Your task to perform on an android device: empty trash in google photos Image 0: 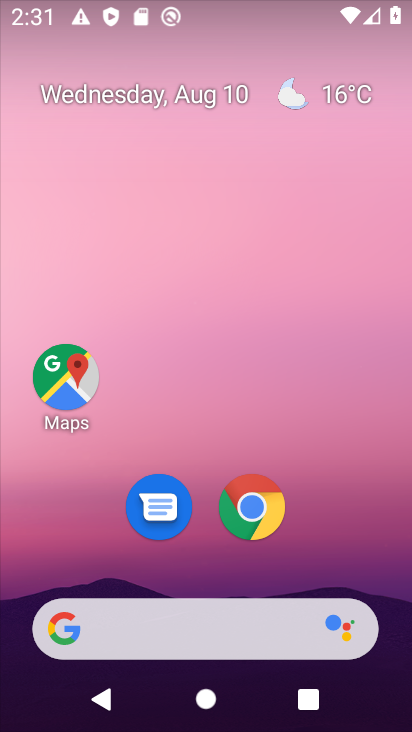
Step 0: drag from (342, 541) to (319, 68)
Your task to perform on an android device: empty trash in google photos Image 1: 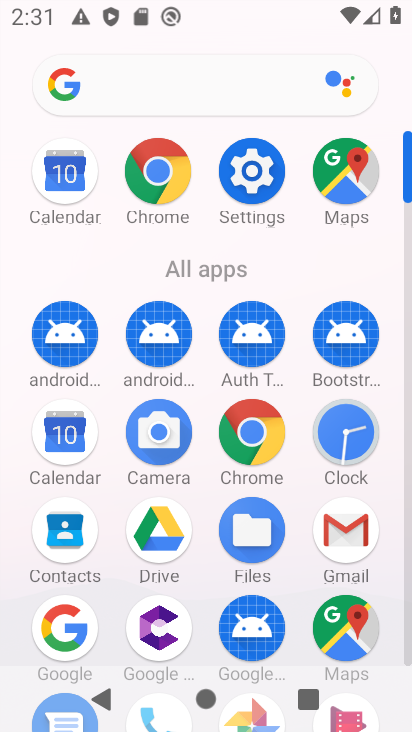
Step 1: drag from (201, 617) to (211, 175)
Your task to perform on an android device: empty trash in google photos Image 2: 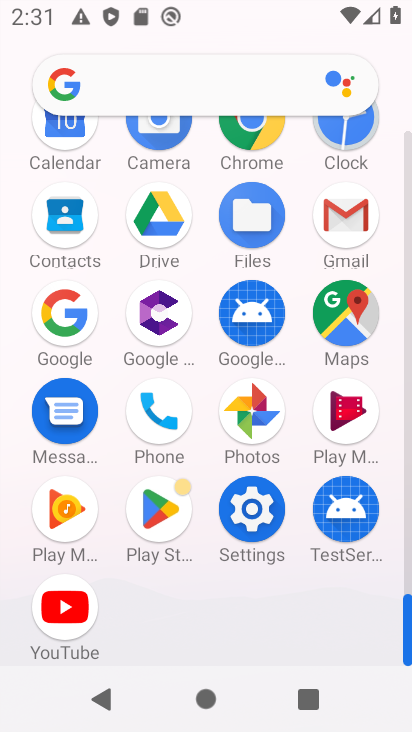
Step 2: click (252, 403)
Your task to perform on an android device: empty trash in google photos Image 3: 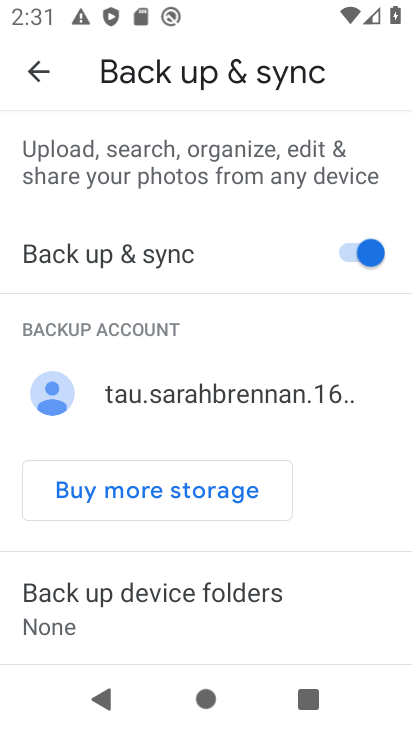
Step 3: click (40, 78)
Your task to perform on an android device: empty trash in google photos Image 4: 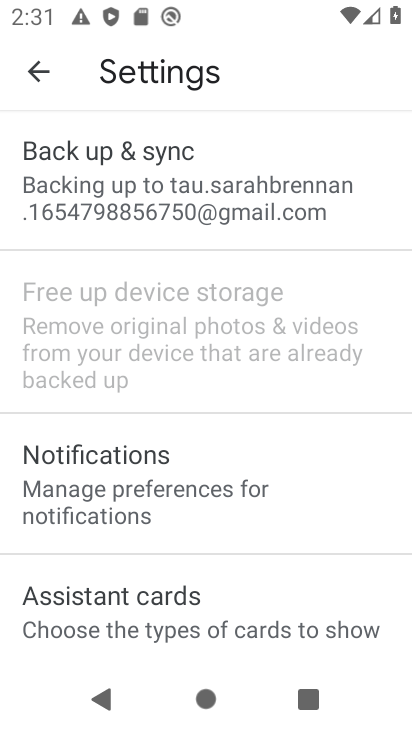
Step 4: click (40, 80)
Your task to perform on an android device: empty trash in google photos Image 5: 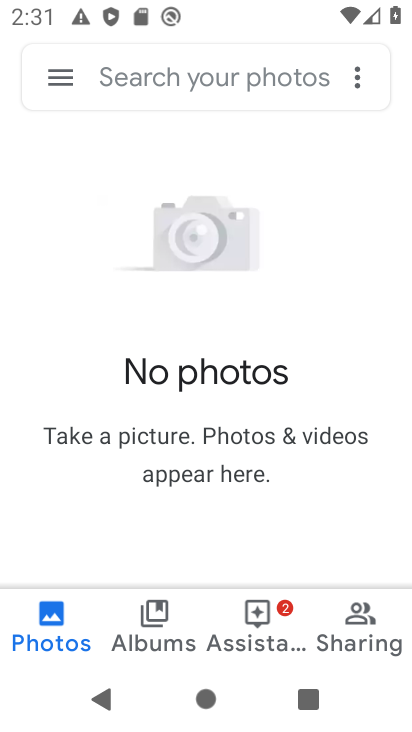
Step 5: click (274, 630)
Your task to perform on an android device: empty trash in google photos Image 6: 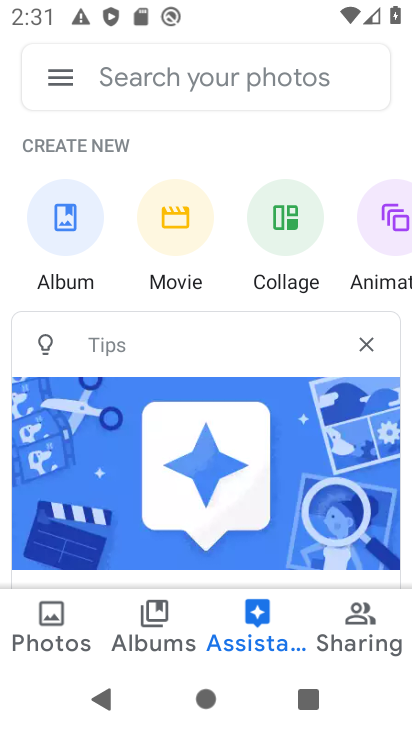
Step 6: click (53, 88)
Your task to perform on an android device: empty trash in google photos Image 7: 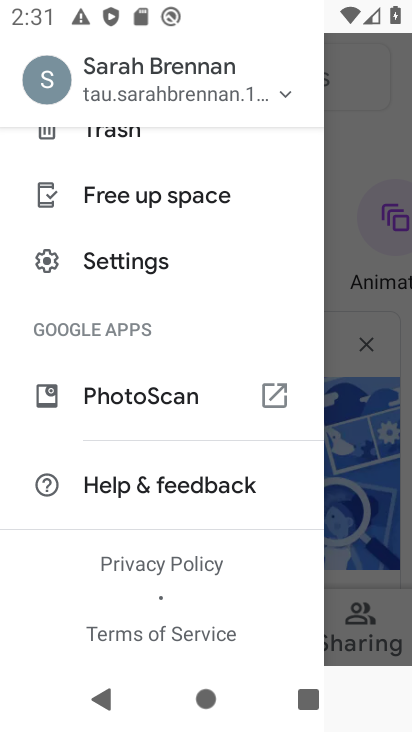
Step 7: click (125, 142)
Your task to perform on an android device: empty trash in google photos Image 8: 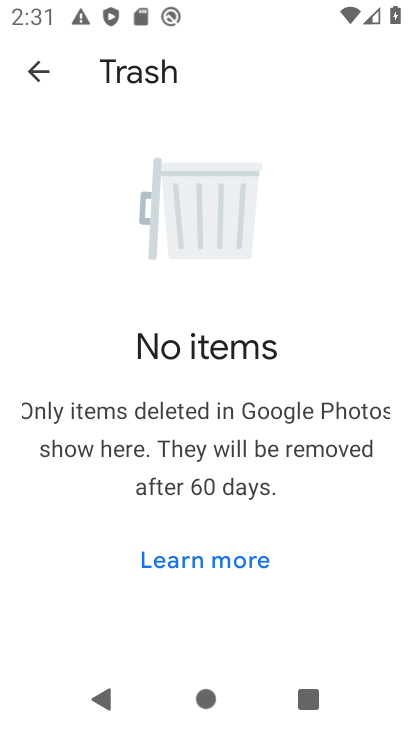
Step 8: task complete